Your task to perform on an android device: Search for "razer naga" on walmart, select the first entry, add it to the cart, then select checkout. Image 0: 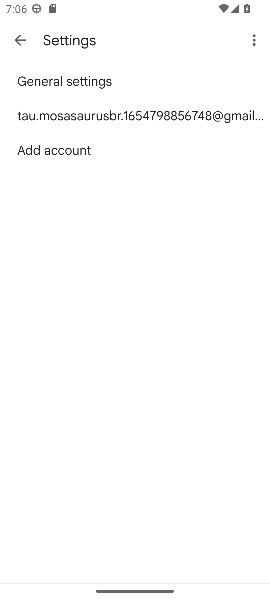
Step 0: press home button
Your task to perform on an android device: Search for "razer naga" on walmart, select the first entry, add it to the cart, then select checkout. Image 1: 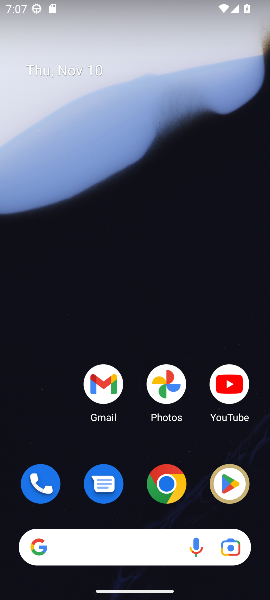
Step 1: click (165, 487)
Your task to perform on an android device: Search for "razer naga" on walmart, select the first entry, add it to the cart, then select checkout. Image 2: 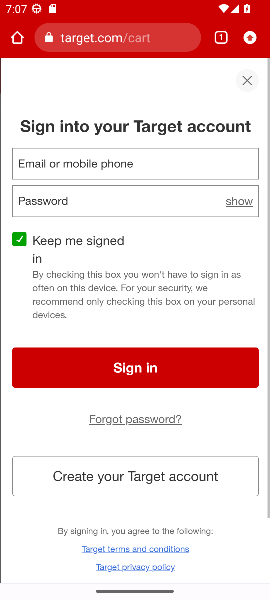
Step 2: click (98, 44)
Your task to perform on an android device: Search for "razer naga" on walmart, select the first entry, add it to the cart, then select checkout. Image 3: 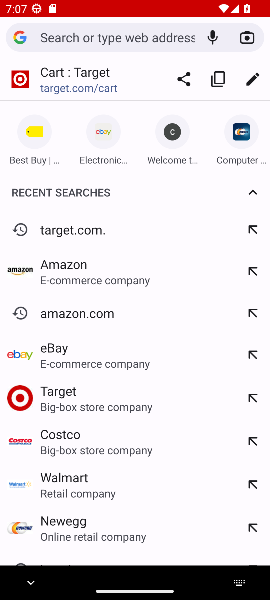
Step 3: type "walmart.com"
Your task to perform on an android device: Search for "razer naga" on walmart, select the first entry, add it to the cart, then select checkout. Image 4: 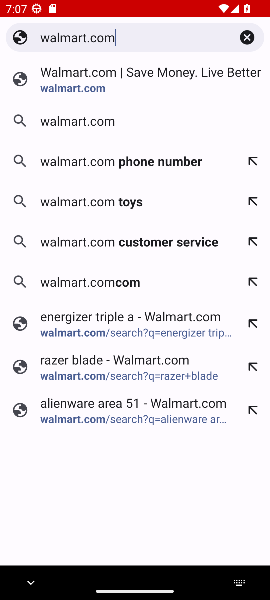
Step 4: click (87, 86)
Your task to perform on an android device: Search for "razer naga" on walmart, select the first entry, add it to the cart, then select checkout. Image 5: 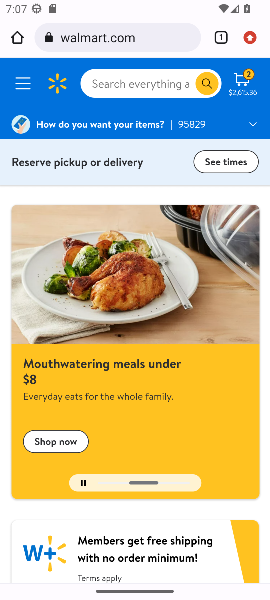
Step 5: click (120, 85)
Your task to perform on an android device: Search for "razer naga" on walmart, select the first entry, add it to the cart, then select checkout. Image 6: 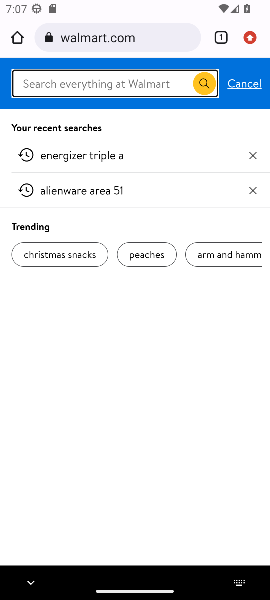
Step 6: type "razer naga"
Your task to perform on an android device: Search for "razer naga" on walmart, select the first entry, add it to the cart, then select checkout. Image 7: 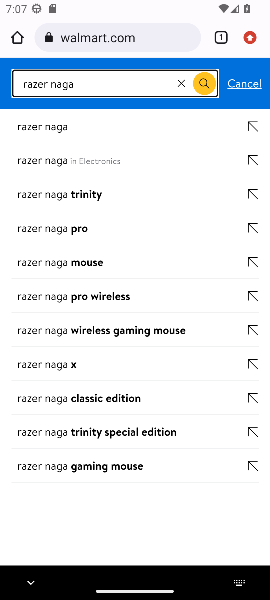
Step 7: click (47, 129)
Your task to perform on an android device: Search for "razer naga" on walmart, select the first entry, add it to the cart, then select checkout. Image 8: 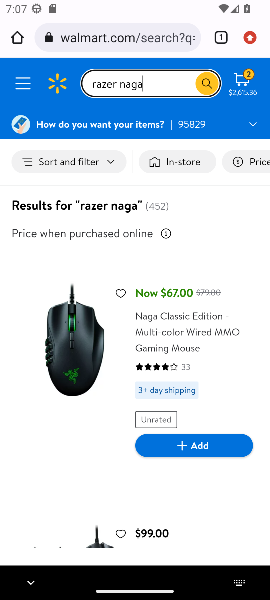
Step 8: task complete